Your task to perform on an android device: change alarm snooze length Image 0: 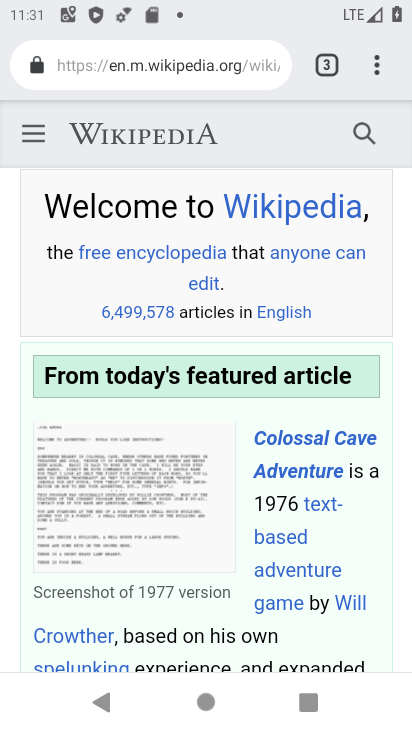
Step 0: press home button
Your task to perform on an android device: change alarm snooze length Image 1: 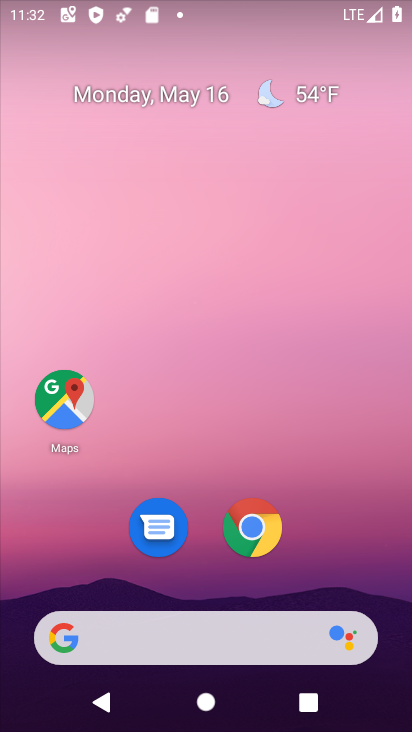
Step 1: drag from (297, 597) to (313, 162)
Your task to perform on an android device: change alarm snooze length Image 2: 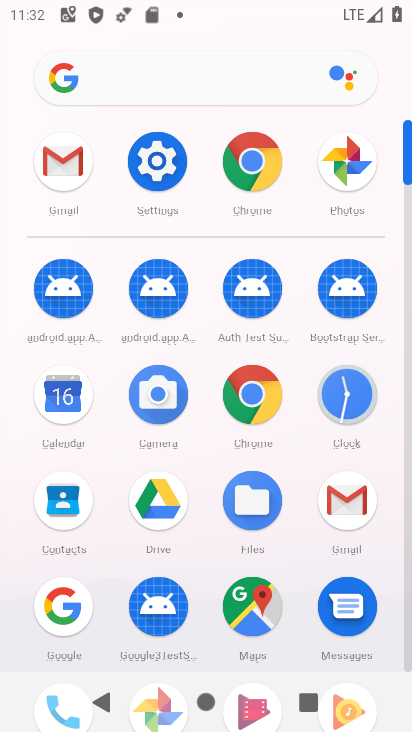
Step 2: click (359, 384)
Your task to perform on an android device: change alarm snooze length Image 3: 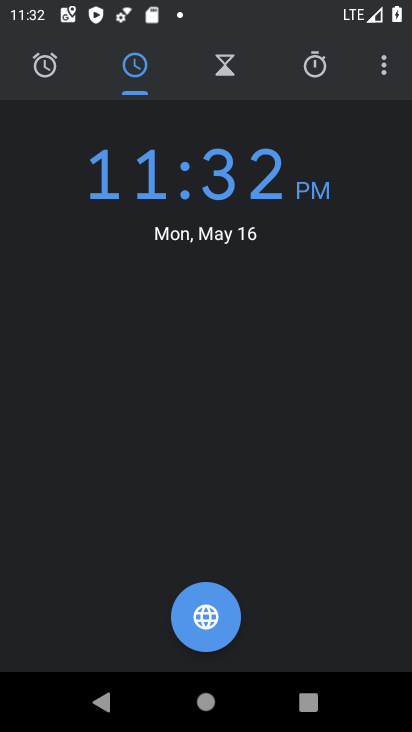
Step 3: click (385, 75)
Your task to perform on an android device: change alarm snooze length Image 4: 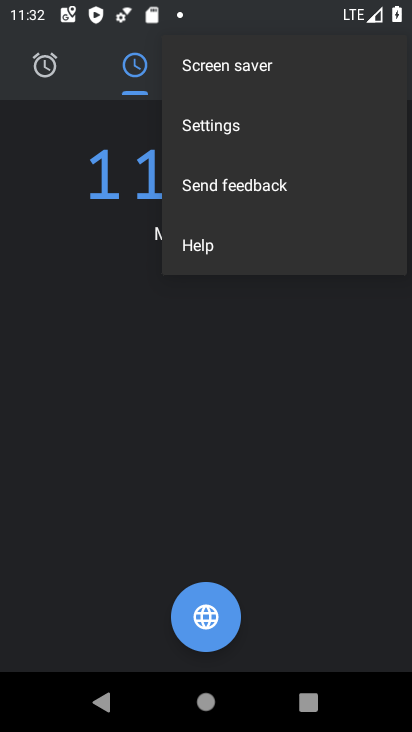
Step 4: click (222, 140)
Your task to perform on an android device: change alarm snooze length Image 5: 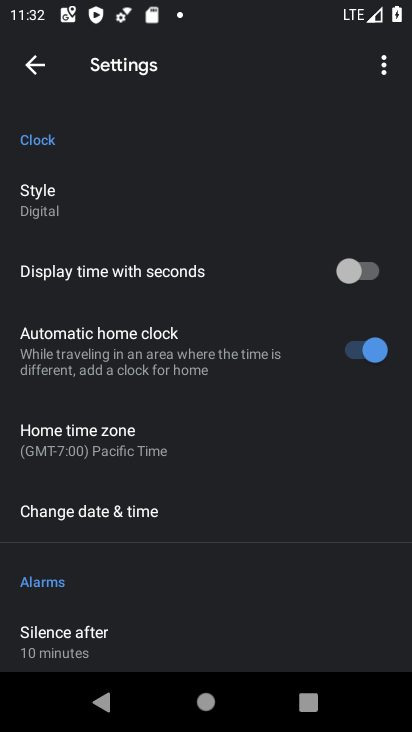
Step 5: drag from (160, 537) to (174, 241)
Your task to perform on an android device: change alarm snooze length Image 6: 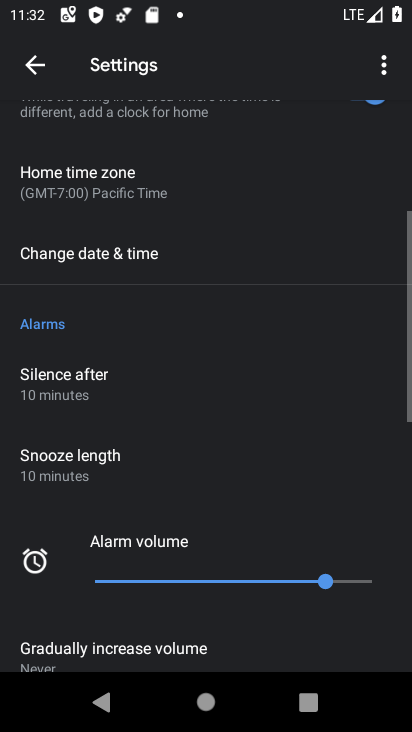
Step 6: drag from (174, 478) to (185, 311)
Your task to perform on an android device: change alarm snooze length Image 7: 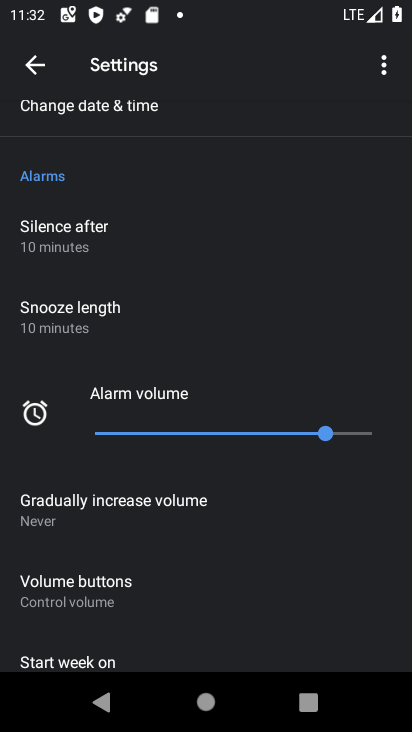
Step 7: drag from (159, 576) to (171, 405)
Your task to perform on an android device: change alarm snooze length Image 8: 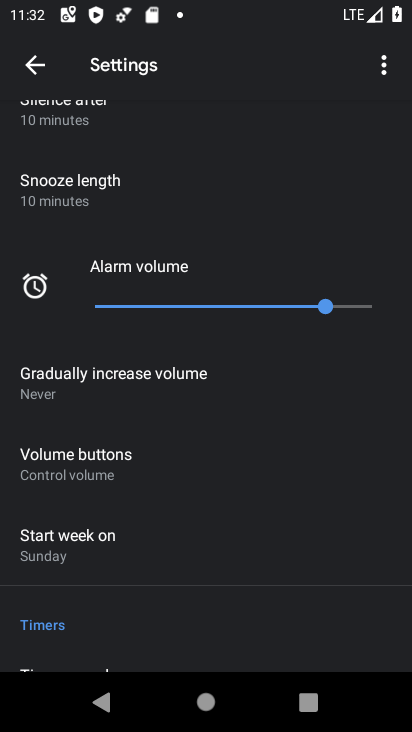
Step 8: click (160, 198)
Your task to perform on an android device: change alarm snooze length Image 9: 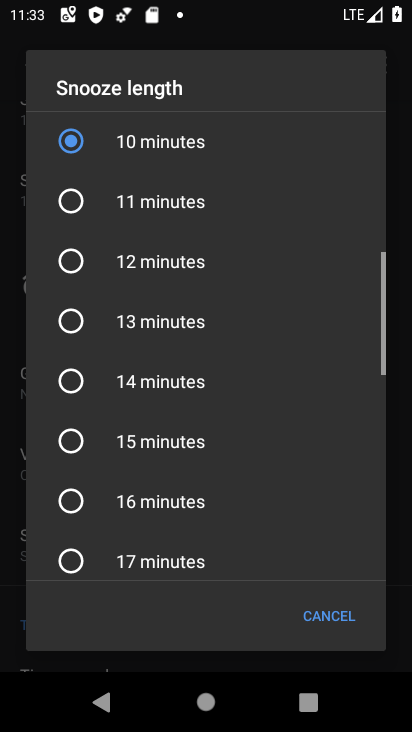
Step 9: click (193, 295)
Your task to perform on an android device: change alarm snooze length Image 10: 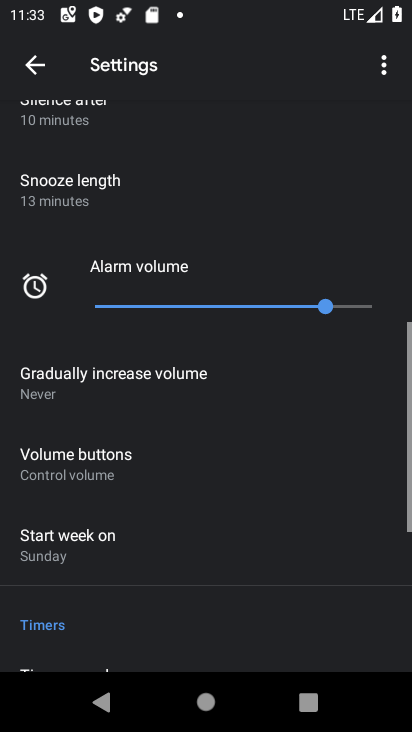
Step 10: task complete